Your task to perform on an android device: Go to accessibility settings Image 0: 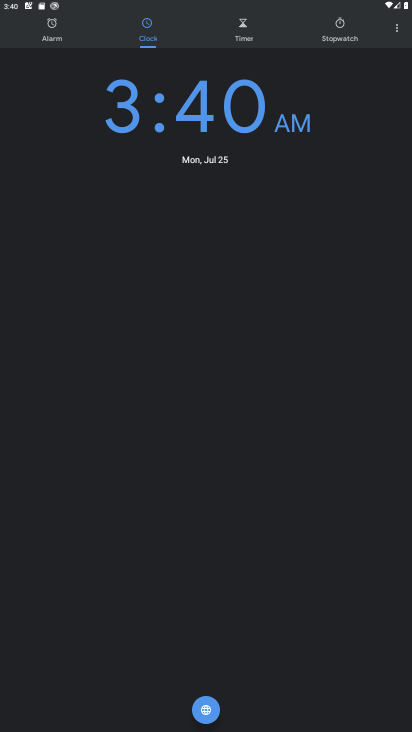
Step 0: press home button
Your task to perform on an android device: Go to accessibility settings Image 1: 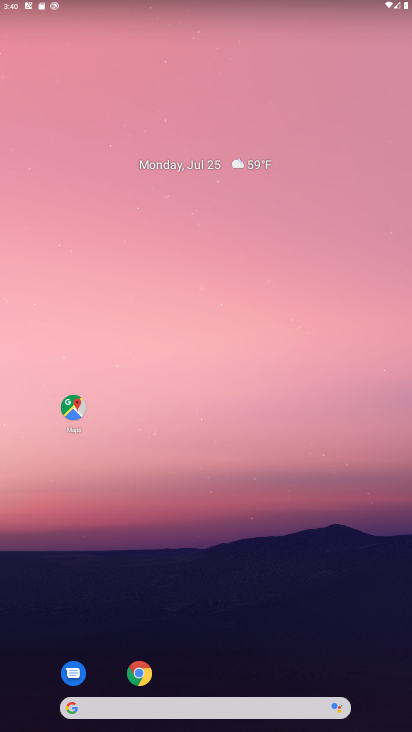
Step 1: drag from (303, 684) to (208, 142)
Your task to perform on an android device: Go to accessibility settings Image 2: 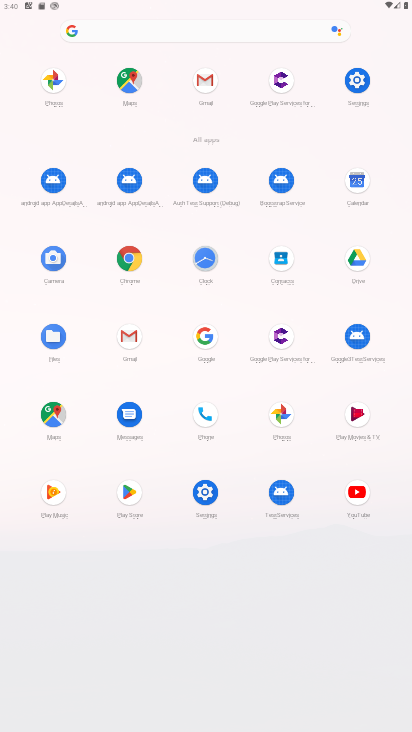
Step 2: click (206, 495)
Your task to perform on an android device: Go to accessibility settings Image 3: 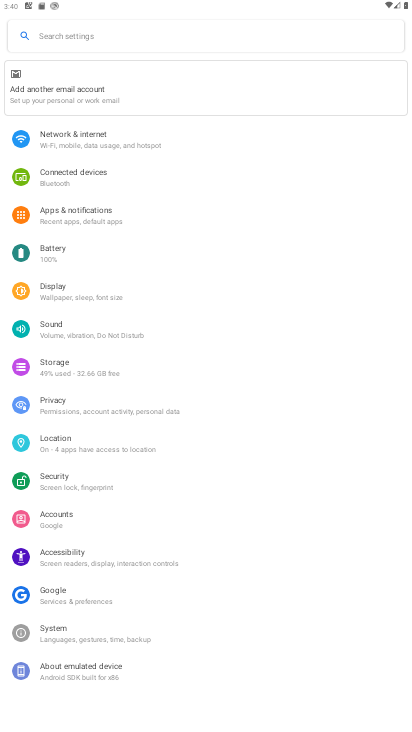
Step 3: click (96, 560)
Your task to perform on an android device: Go to accessibility settings Image 4: 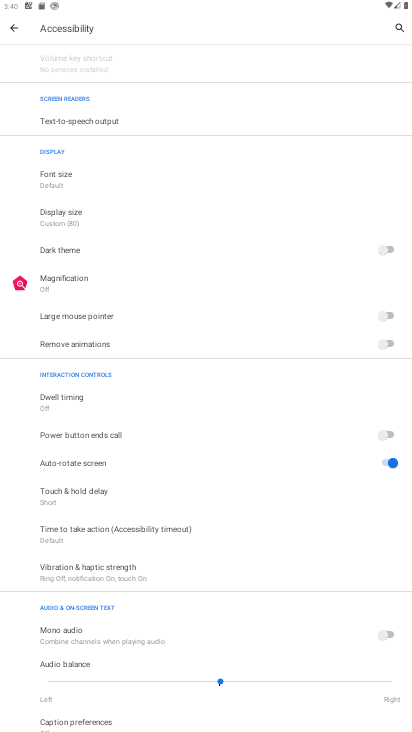
Step 4: task complete